Your task to perform on an android device: Is it going to rain today? Image 0: 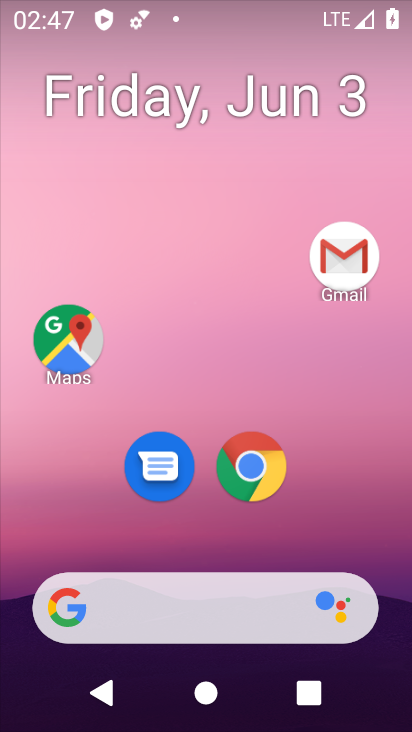
Step 0: drag from (199, 552) to (196, 188)
Your task to perform on an android device: Is it going to rain today? Image 1: 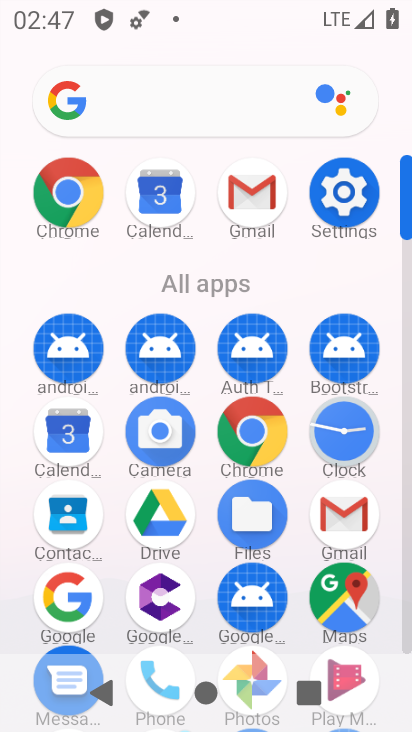
Step 1: click (63, 598)
Your task to perform on an android device: Is it going to rain today? Image 2: 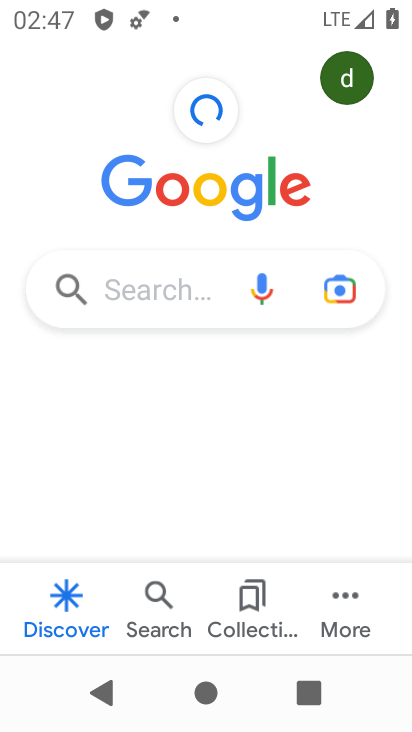
Step 2: click (141, 286)
Your task to perform on an android device: Is it going to rain today? Image 3: 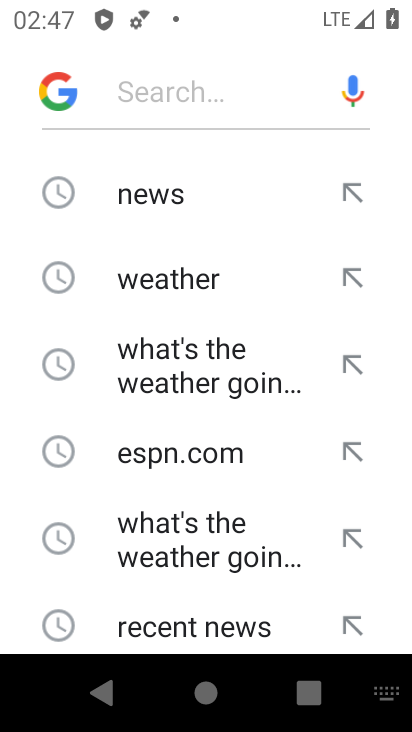
Step 3: click (162, 275)
Your task to perform on an android device: Is it going to rain today? Image 4: 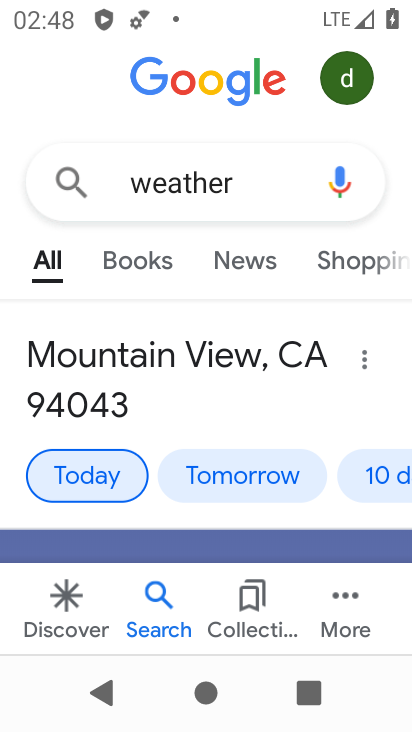
Step 4: task complete